Your task to perform on an android device: Go to ESPN.com Image 0: 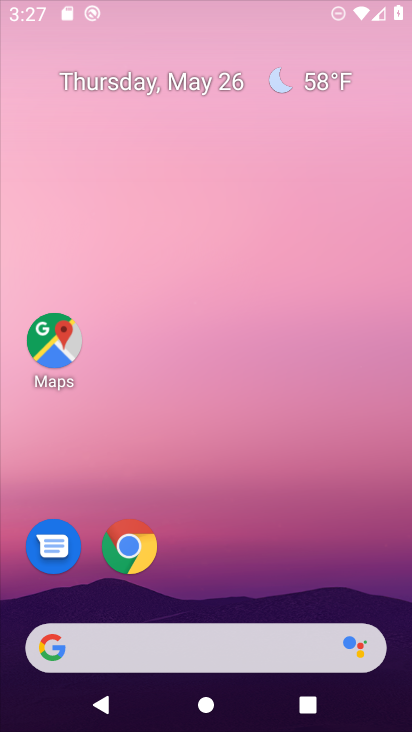
Step 0: press home button
Your task to perform on an android device: Go to ESPN.com Image 1: 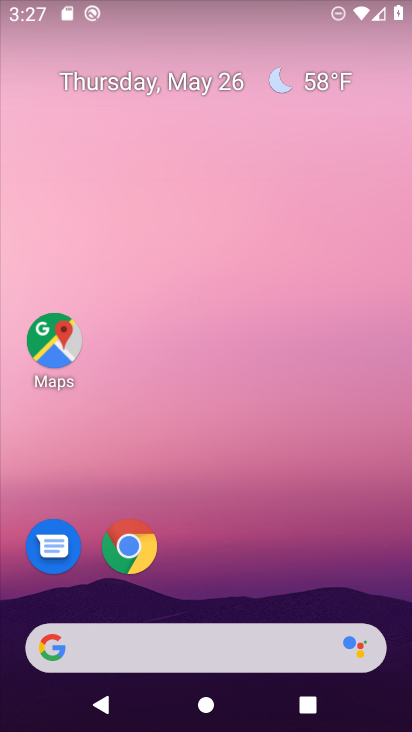
Step 1: click (128, 537)
Your task to perform on an android device: Go to ESPN.com Image 2: 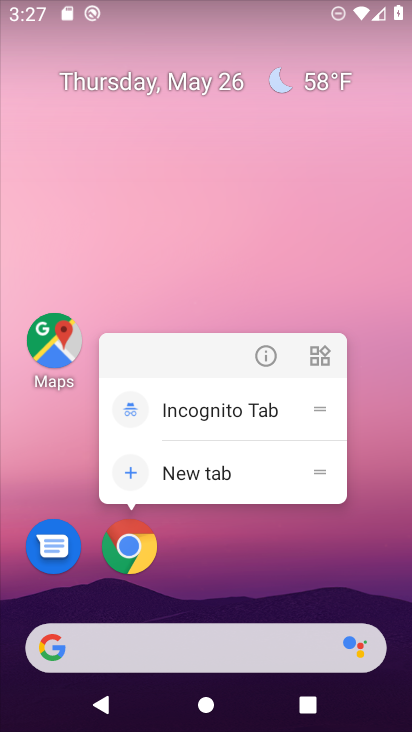
Step 2: click (124, 536)
Your task to perform on an android device: Go to ESPN.com Image 3: 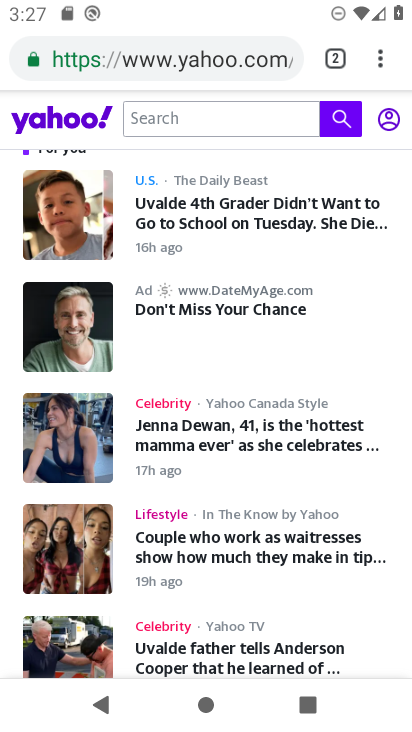
Step 3: click (335, 53)
Your task to perform on an android device: Go to ESPN.com Image 4: 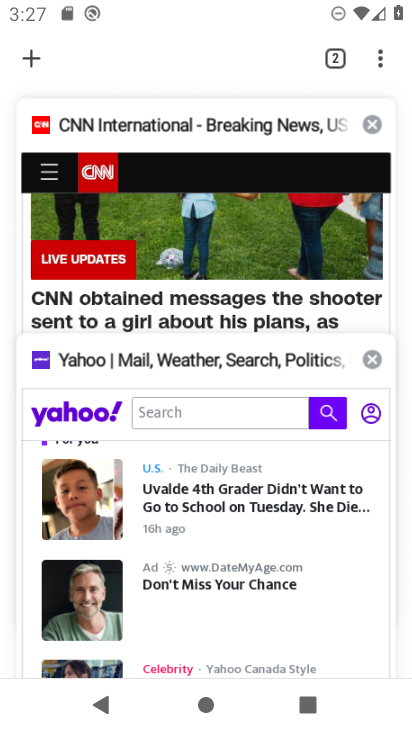
Step 4: click (375, 119)
Your task to perform on an android device: Go to ESPN.com Image 5: 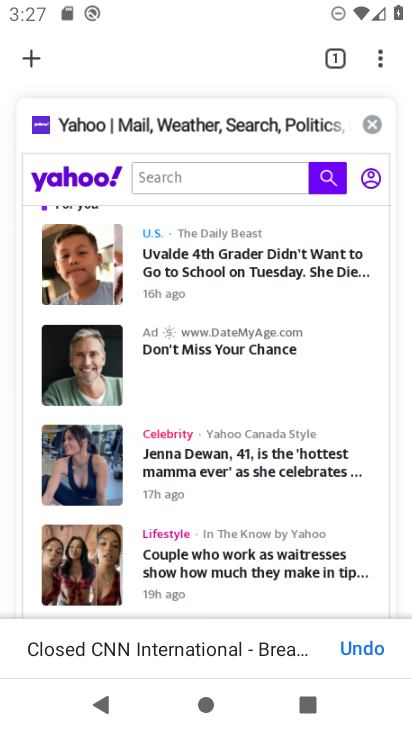
Step 5: click (375, 118)
Your task to perform on an android device: Go to ESPN.com Image 6: 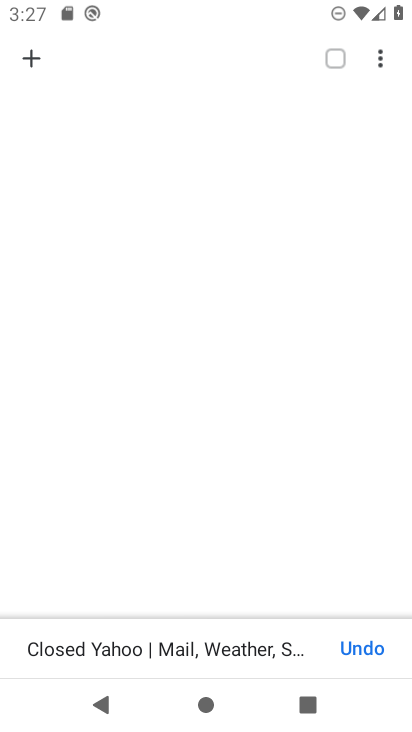
Step 6: click (36, 60)
Your task to perform on an android device: Go to ESPN.com Image 7: 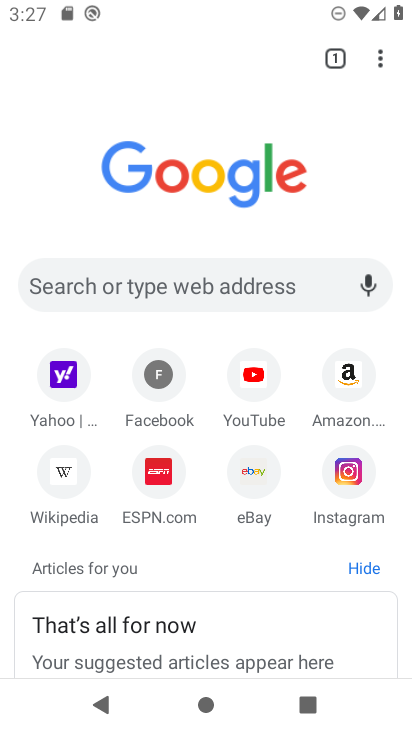
Step 7: click (158, 467)
Your task to perform on an android device: Go to ESPN.com Image 8: 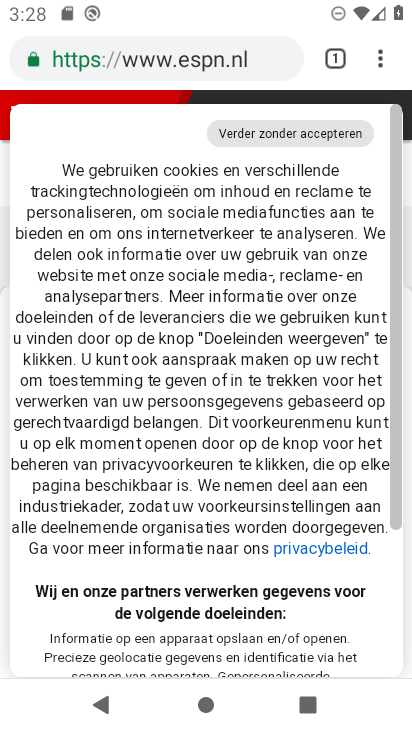
Step 8: drag from (245, 356) to (263, 85)
Your task to perform on an android device: Go to ESPN.com Image 9: 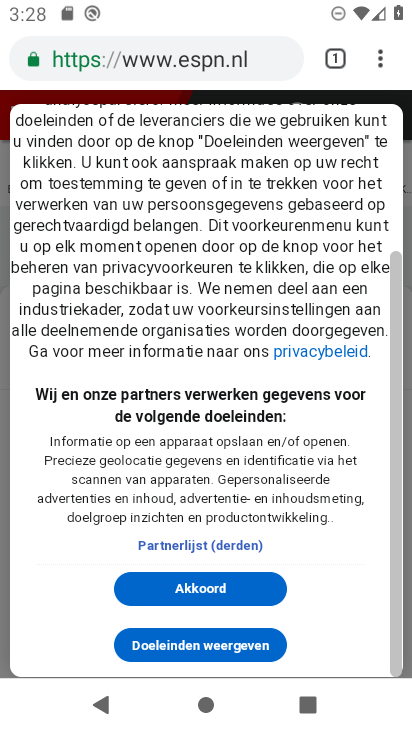
Step 9: click (195, 587)
Your task to perform on an android device: Go to ESPN.com Image 10: 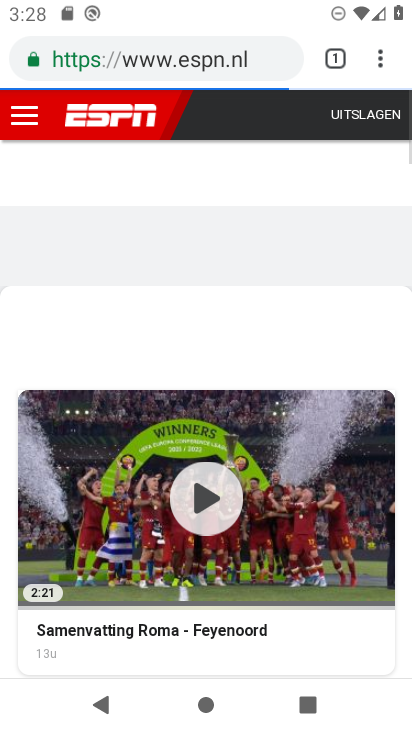
Step 10: task complete